Your task to perform on an android device: read, delete, or share a saved page in the chrome app Image 0: 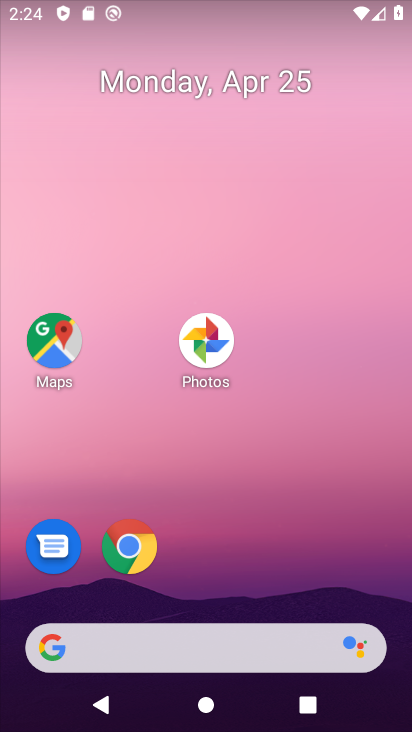
Step 0: drag from (256, 543) to (313, 261)
Your task to perform on an android device: read, delete, or share a saved page in the chrome app Image 1: 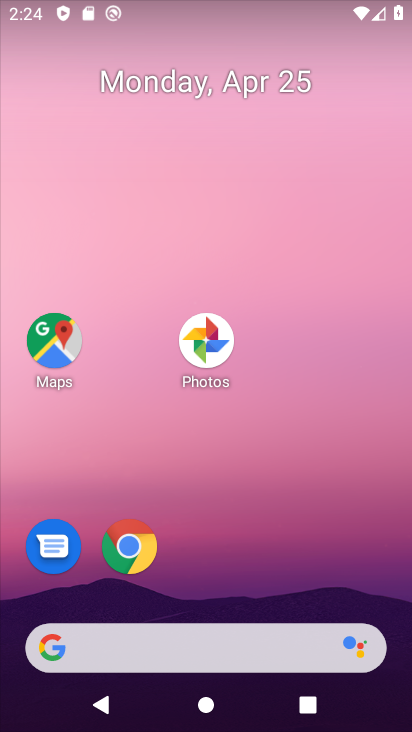
Step 1: drag from (298, 207) to (301, 157)
Your task to perform on an android device: read, delete, or share a saved page in the chrome app Image 2: 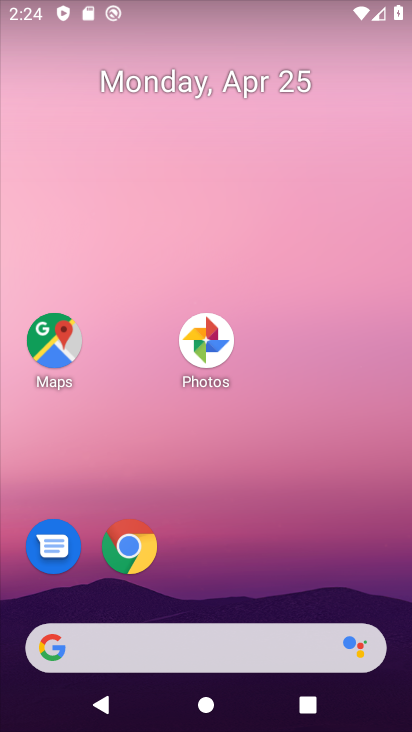
Step 2: drag from (267, 498) to (322, 230)
Your task to perform on an android device: read, delete, or share a saved page in the chrome app Image 3: 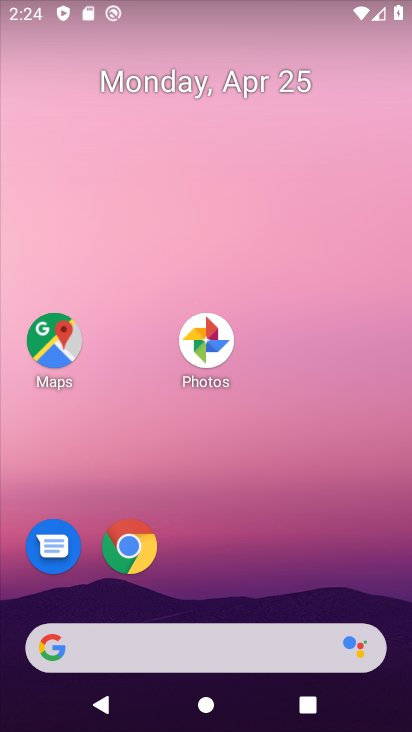
Step 3: drag from (275, 543) to (294, 210)
Your task to perform on an android device: read, delete, or share a saved page in the chrome app Image 4: 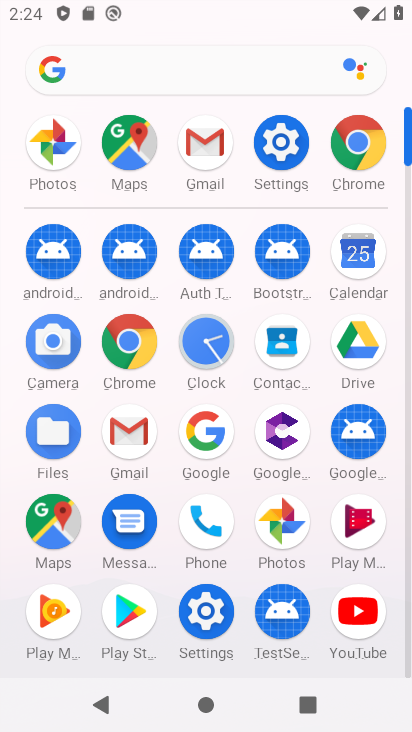
Step 4: click (282, 134)
Your task to perform on an android device: read, delete, or share a saved page in the chrome app Image 5: 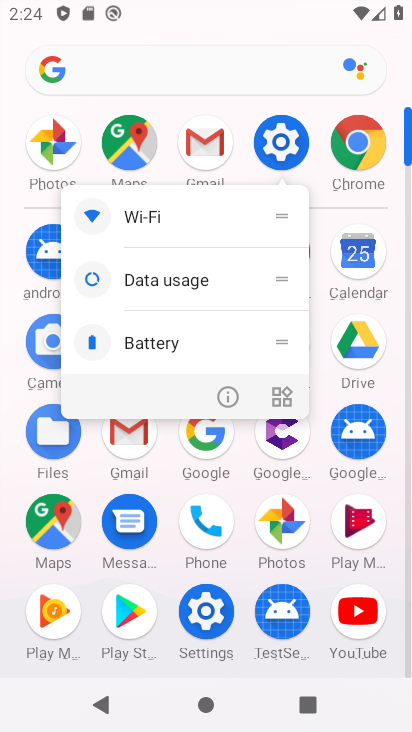
Step 5: click (283, 137)
Your task to perform on an android device: read, delete, or share a saved page in the chrome app Image 6: 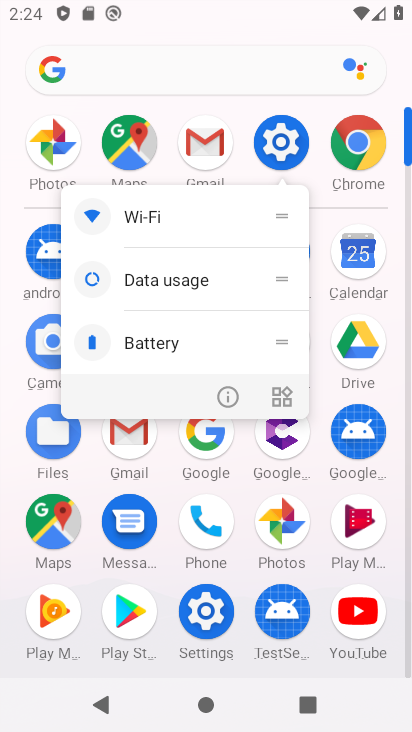
Step 6: click (283, 137)
Your task to perform on an android device: read, delete, or share a saved page in the chrome app Image 7: 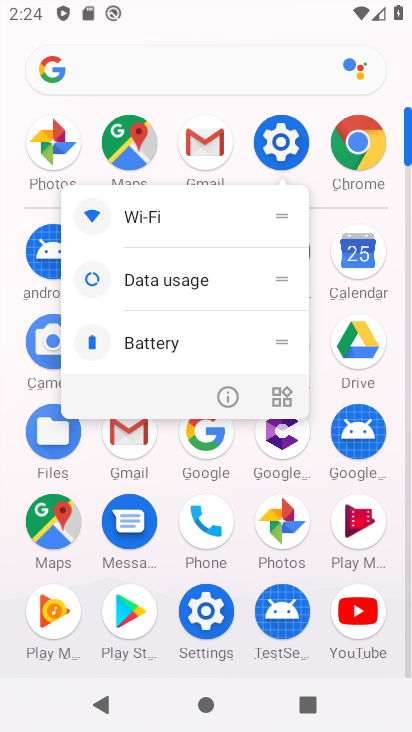
Step 7: click (283, 137)
Your task to perform on an android device: read, delete, or share a saved page in the chrome app Image 8: 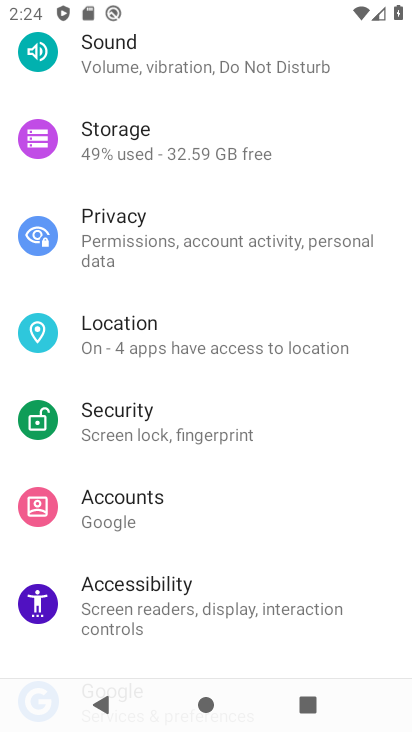
Step 8: press home button
Your task to perform on an android device: read, delete, or share a saved page in the chrome app Image 9: 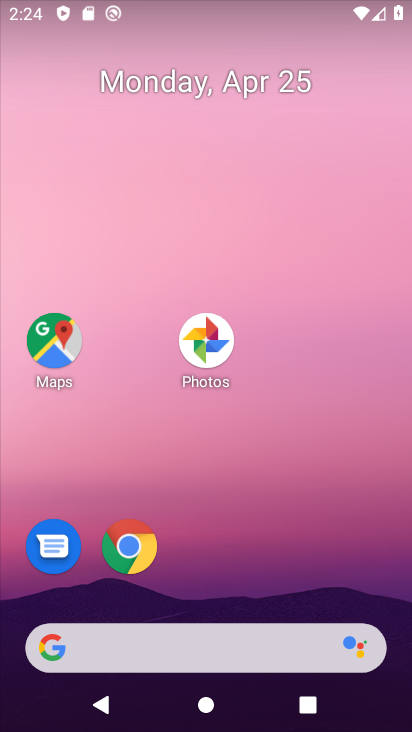
Step 9: drag from (222, 563) to (323, 159)
Your task to perform on an android device: read, delete, or share a saved page in the chrome app Image 10: 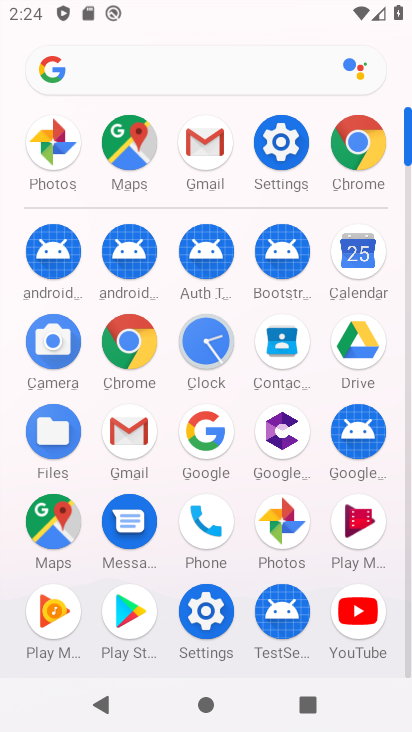
Step 10: click (130, 336)
Your task to perform on an android device: read, delete, or share a saved page in the chrome app Image 11: 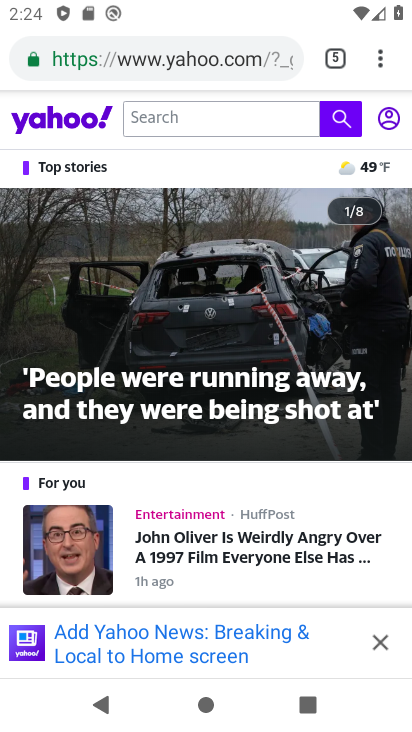
Step 11: click (372, 57)
Your task to perform on an android device: read, delete, or share a saved page in the chrome app Image 12: 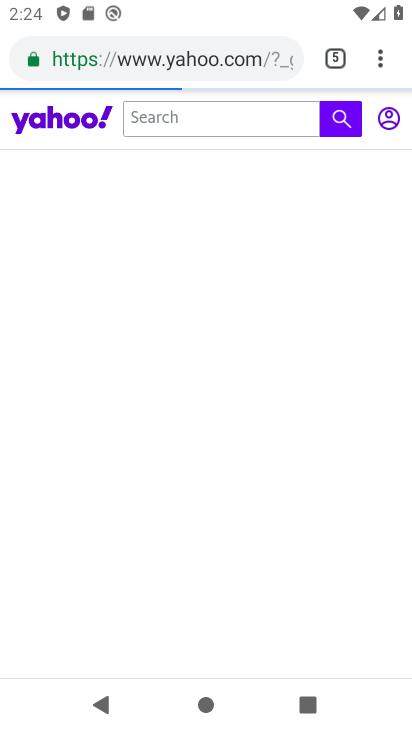
Step 12: click (364, 57)
Your task to perform on an android device: read, delete, or share a saved page in the chrome app Image 13: 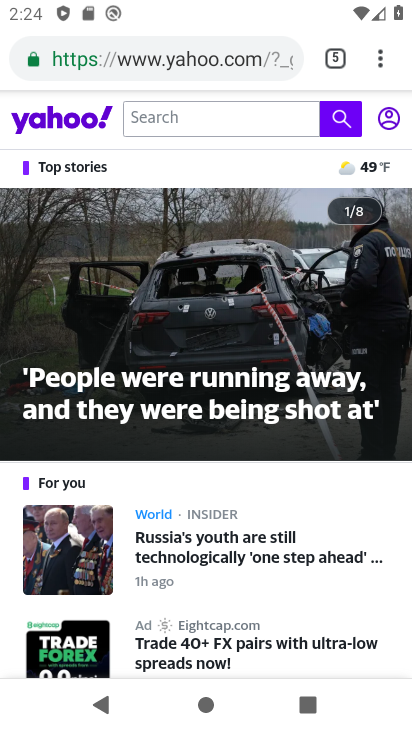
Step 13: click (364, 57)
Your task to perform on an android device: read, delete, or share a saved page in the chrome app Image 14: 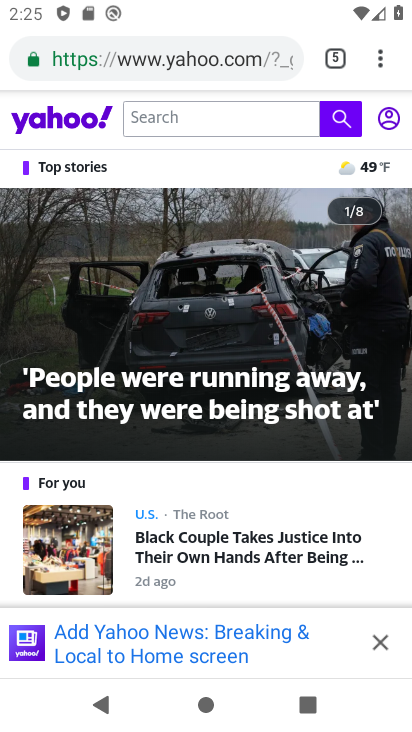
Step 14: click (364, 66)
Your task to perform on an android device: read, delete, or share a saved page in the chrome app Image 15: 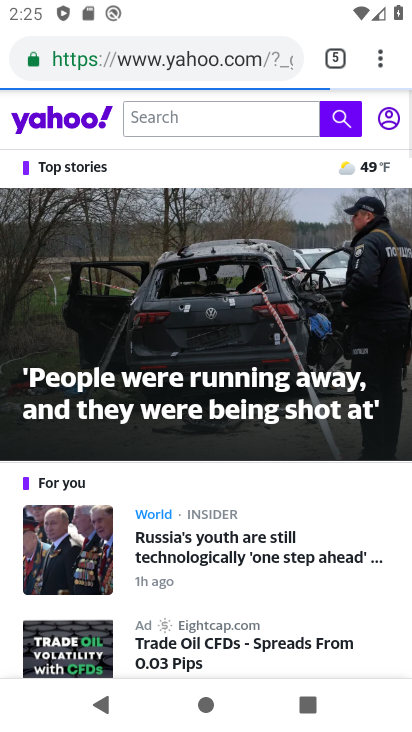
Step 15: click (354, 62)
Your task to perform on an android device: read, delete, or share a saved page in the chrome app Image 16: 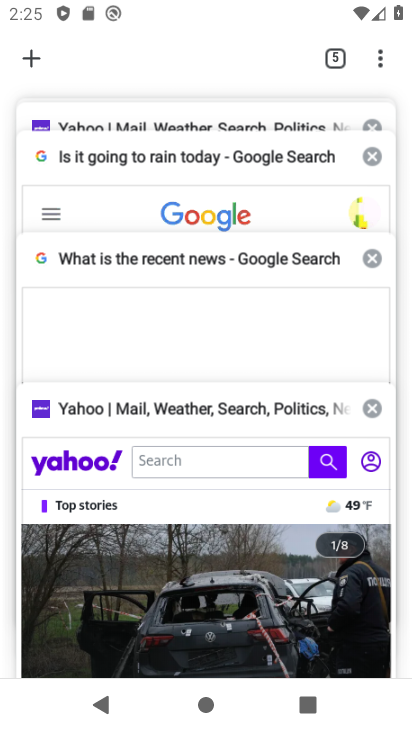
Step 16: click (31, 54)
Your task to perform on an android device: read, delete, or share a saved page in the chrome app Image 17: 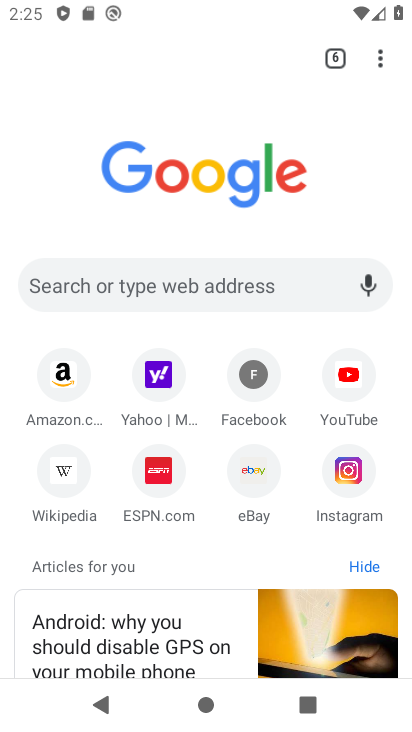
Step 17: click (371, 51)
Your task to perform on an android device: read, delete, or share a saved page in the chrome app Image 18: 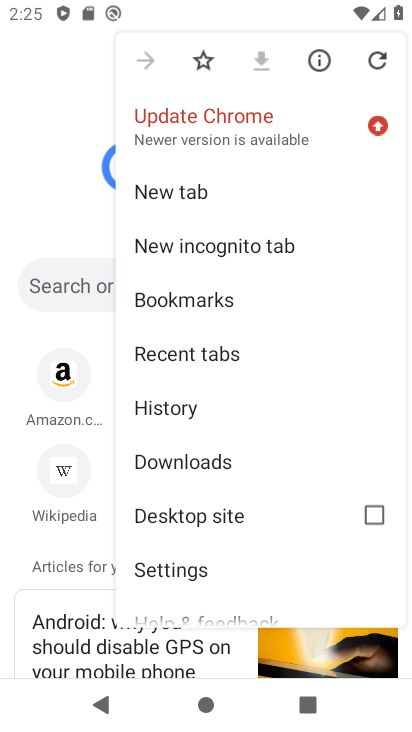
Step 18: click (198, 461)
Your task to perform on an android device: read, delete, or share a saved page in the chrome app Image 19: 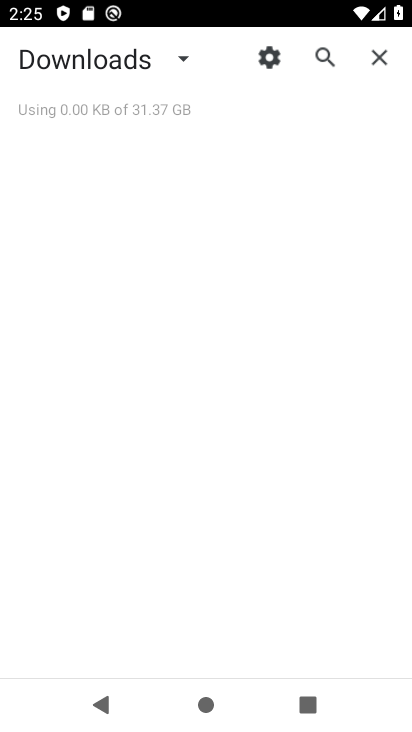
Step 19: click (183, 68)
Your task to perform on an android device: read, delete, or share a saved page in the chrome app Image 20: 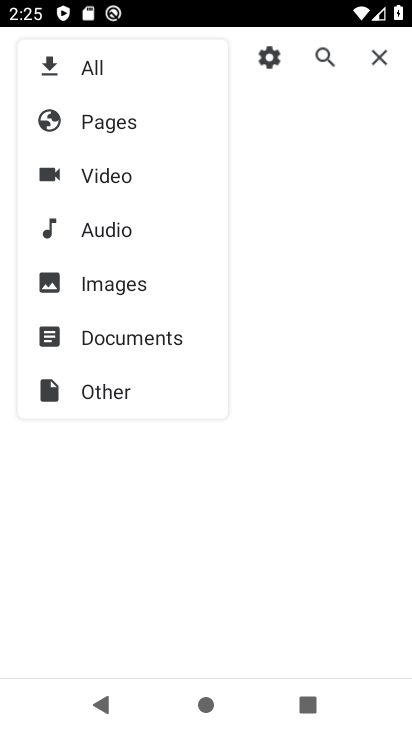
Step 20: click (127, 115)
Your task to perform on an android device: read, delete, or share a saved page in the chrome app Image 21: 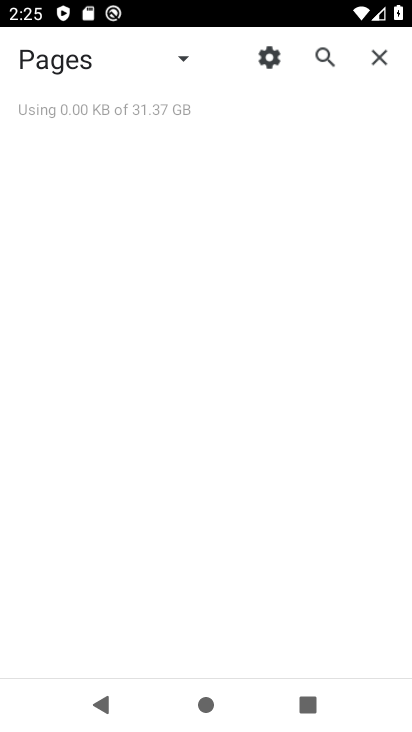
Step 21: task complete